Your task to perform on an android device: toggle javascript in the chrome app Image 0: 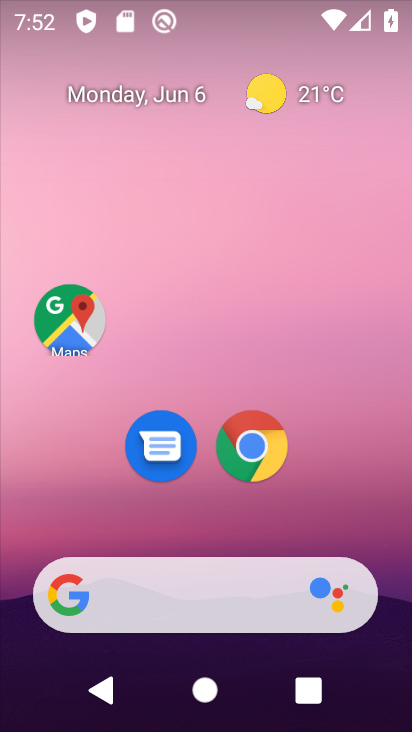
Step 0: click (252, 446)
Your task to perform on an android device: toggle javascript in the chrome app Image 1: 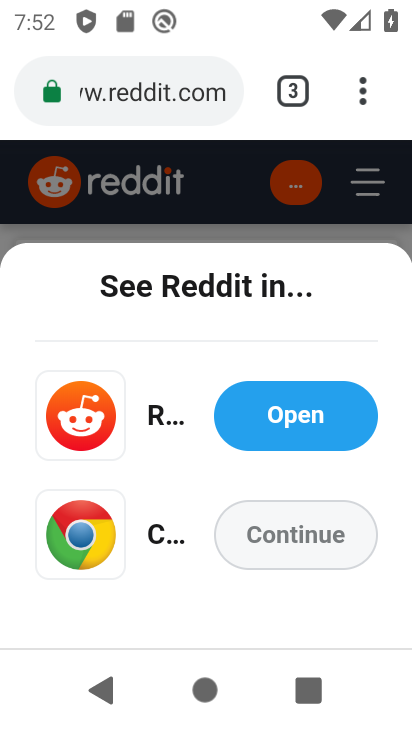
Step 1: click (363, 70)
Your task to perform on an android device: toggle javascript in the chrome app Image 2: 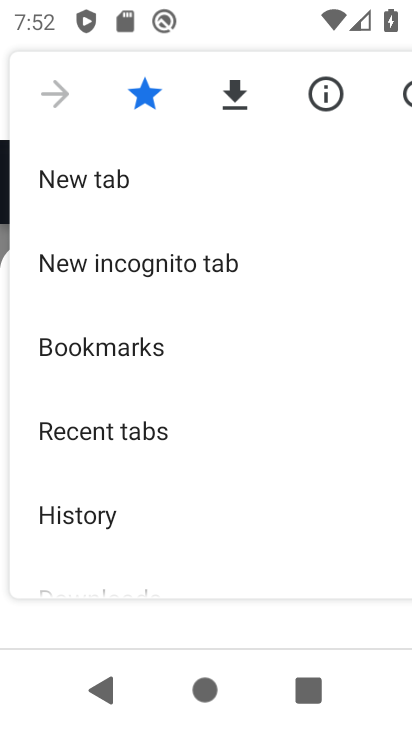
Step 2: drag from (226, 445) to (241, 322)
Your task to perform on an android device: toggle javascript in the chrome app Image 3: 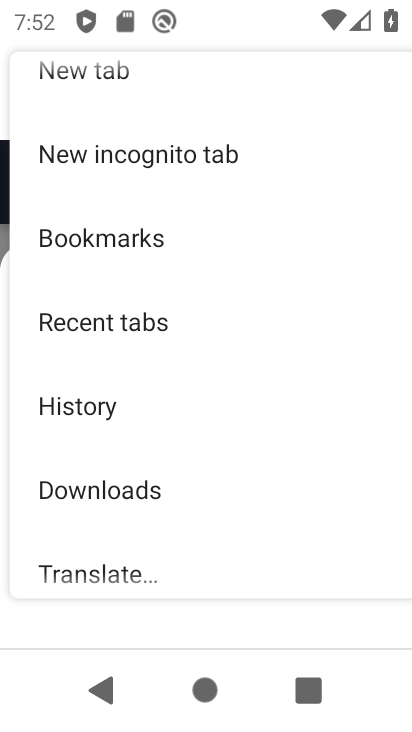
Step 3: click (242, 323)
Your task to perform on an android device: toggle javascript in the chrome app Image 4: 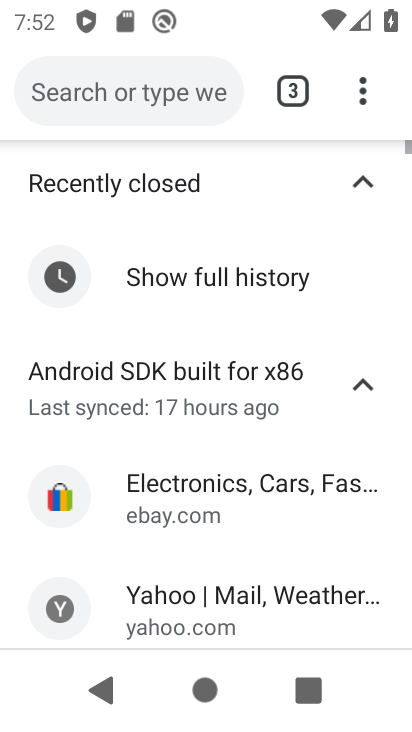
Step 4: click (365, 86)
Your task to perform on an android device: toggle javascript in the chrome app Image 5: 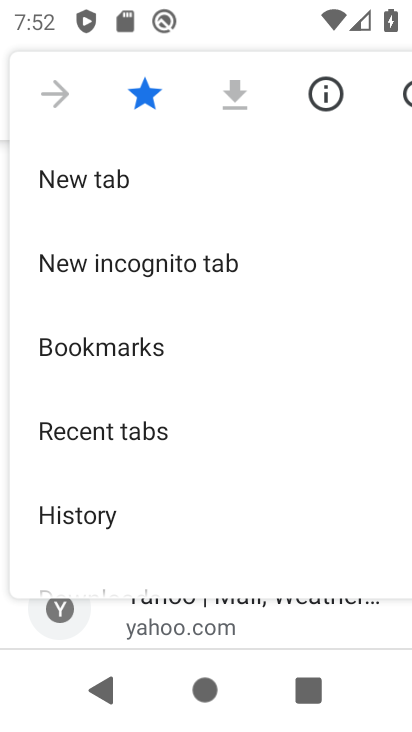
Step 5: drag from (306, 512) to (314, 298)
Your task to perform on an android device: toggle javascript in the chrome app Image 6: 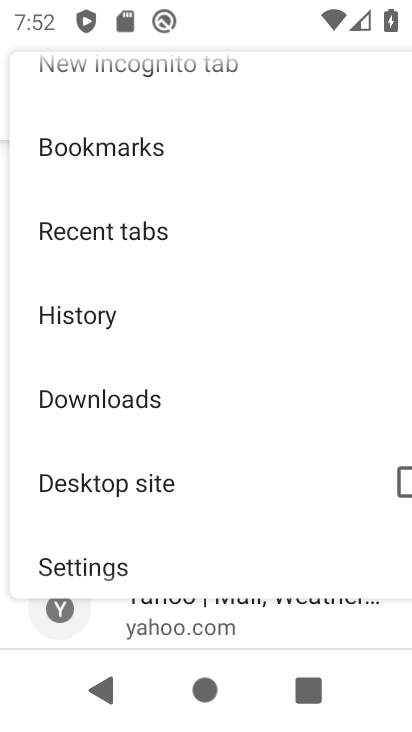
Step 6: click (61, 568)
Your task to perform on an android device: toggle javascript in the chrome app Image 7: 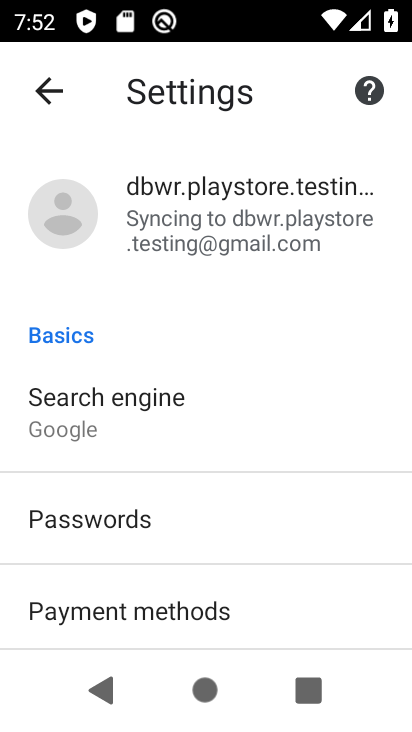
Step 7: drag from (280, 571) to (308, 348)
Your task to perform on an android device: toggle javascript in the chrome app Image 8: 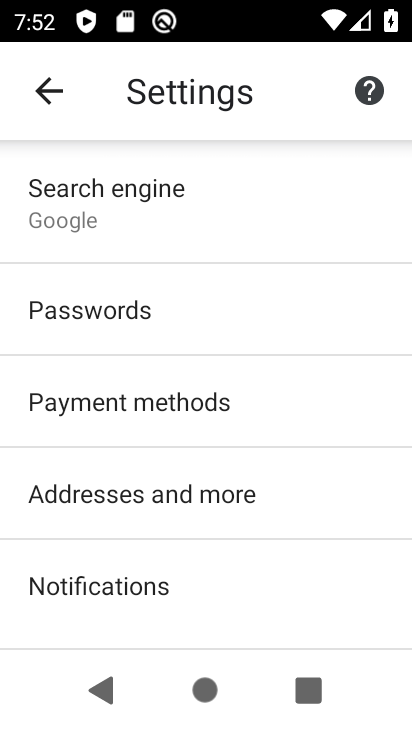
Step 8: drag from (296, 517) to (336, 256)
Your task to perform on an android device: toggle javascript in the chrome app Image 9: 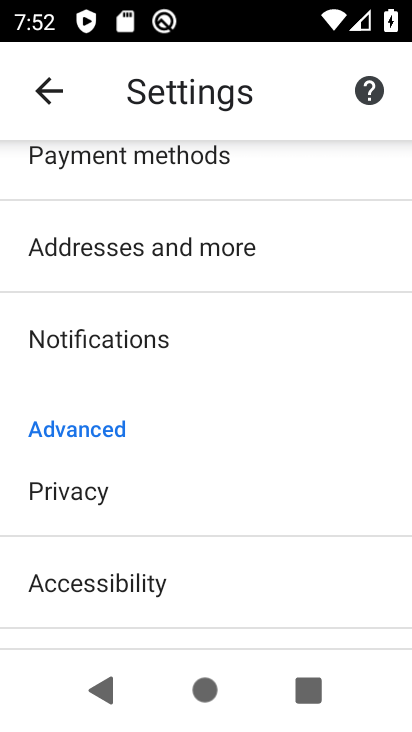
Step 9: drag from (232, 528) to (270, 315)
Your task to perform on an android device: toggle javascript in the chrome app Image 10: 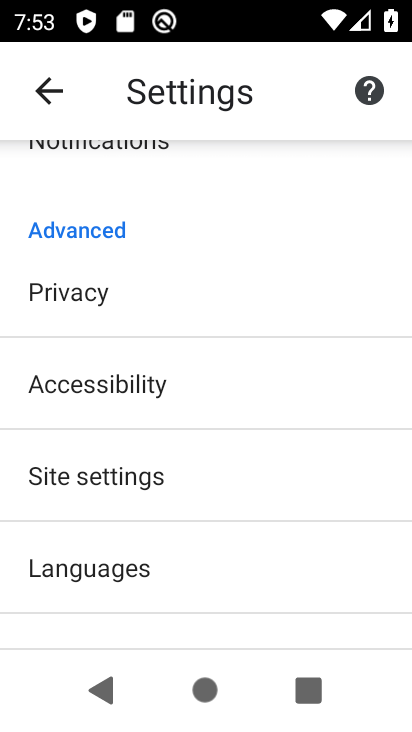
Step 10: click (108, 464)
Your task to perform on an android device: toggle javascript in the chrome app Image 11: 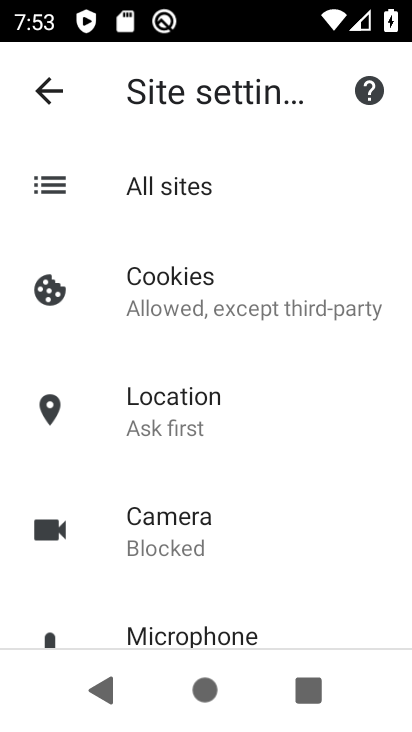
Step 11: drag from (316, 560) to (342, 412)
Your task to perform on an android device: toggle javascript in the chrome app Image 12: 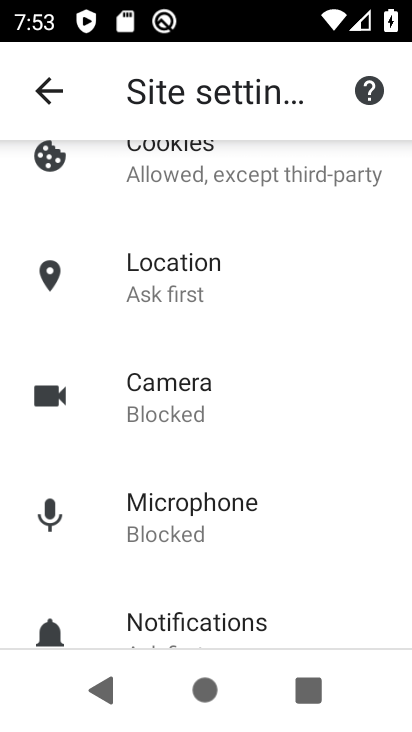
Step 12: drag from (288, 495) to (296, 411)
Your task to perform on an android device: toggle javascript in the chrome app Image 13: 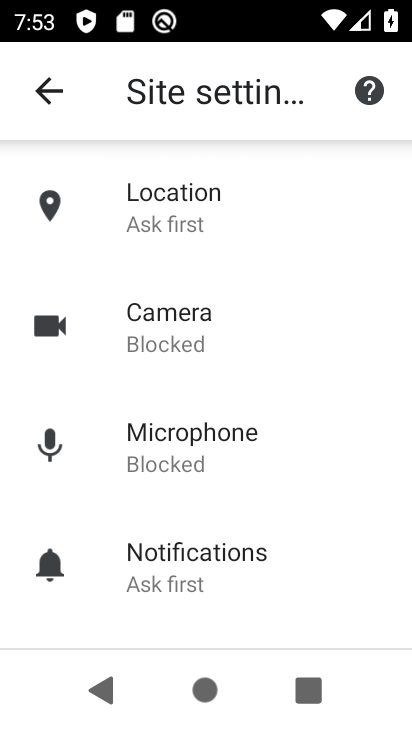
Step 13: drag from (319, 525) to (352, 269)
Your task to perform on an android device: toggle javascript in the chrome app Image 14: 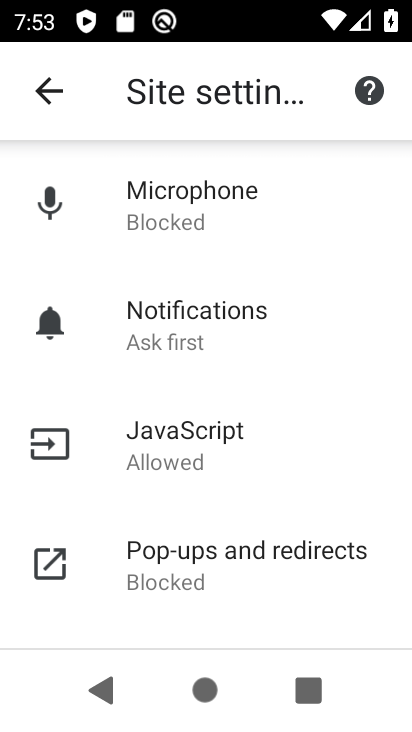
Step 14: click (196, 446)
Your task to perform on an android device: toggle javascript in the chrome app Image 15: 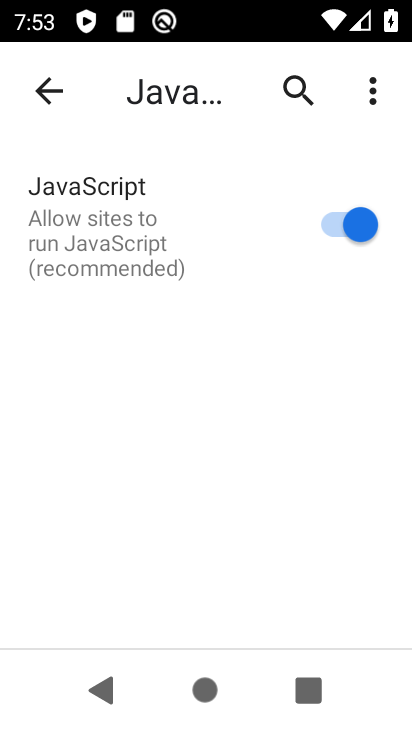
Step 15: click (337, 216)
Your task to perform on an android device: toggle javascript in the chrome app Image 16: 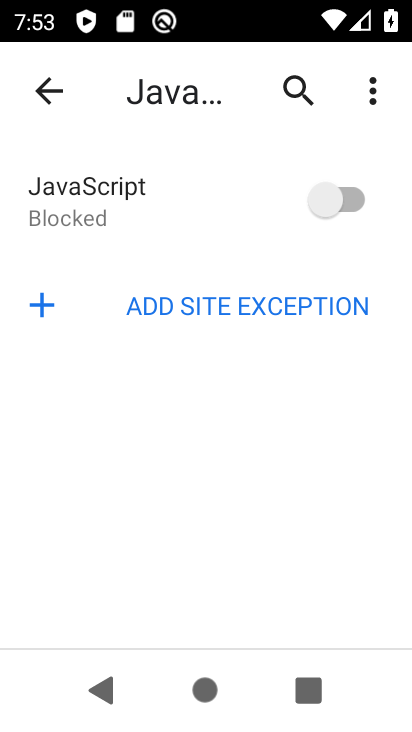
Step 16: task complete